Your task to perform on an android device: open device folders in google photos Image 0: 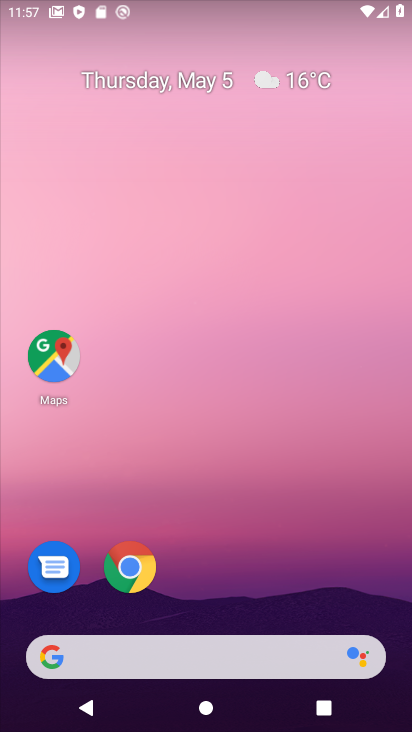
Step 0: drag from (297, 445) to (308, 30)
Your task to perform on an android device: open device folders in google photos Image 1: 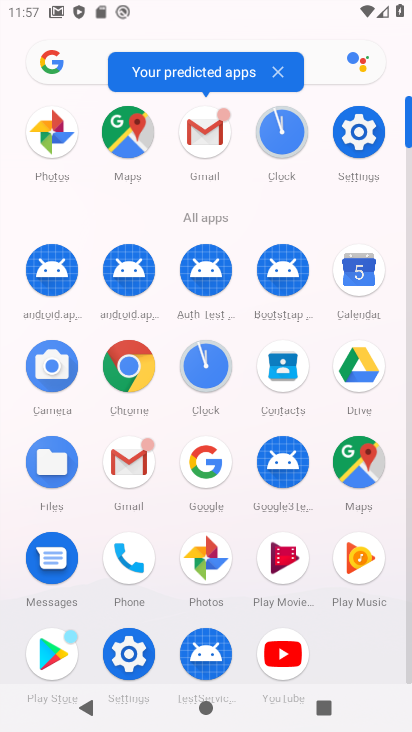
Step 1: click (56, 132)
Your task to perform on an android device: open device folders in google photos Image 2: 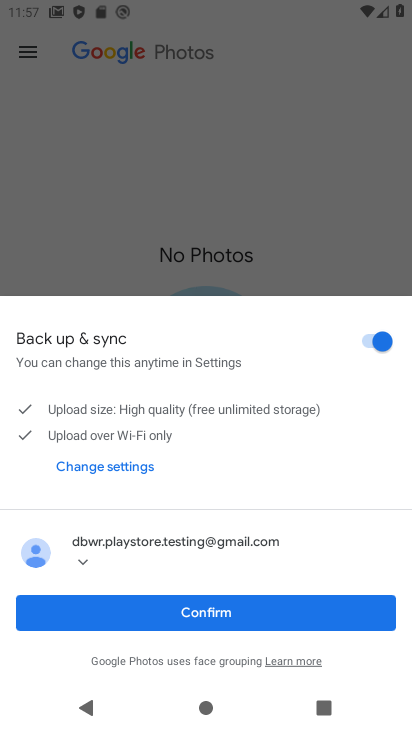
Step 2: click (196, 617)
Your task to perform on an android device: open device folders in google photos Image 3: 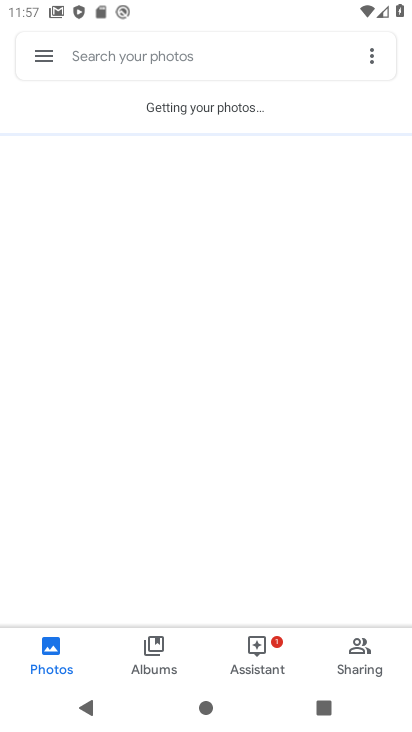
Step 3: click (42, 56)
Your task to perform on an android device: open device folders in google photos Image 4: 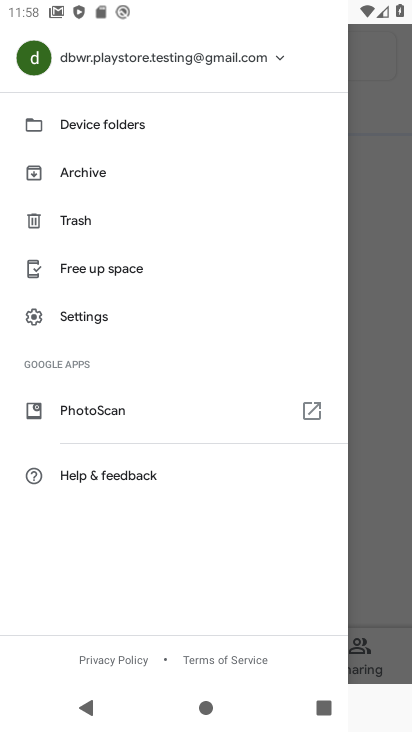
Step 4: click (73, 126)
Your task to perform on an android device: open device folders in google photos Image 5: 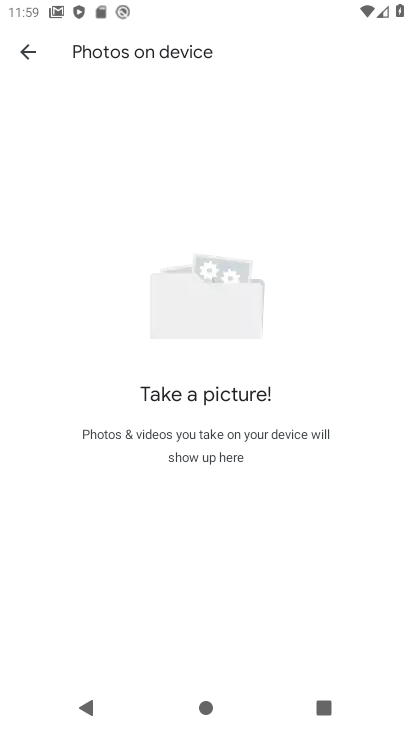
Step 5: task complete